Your task to perform on an android device: Is it going to rain this weekend? Image 0: 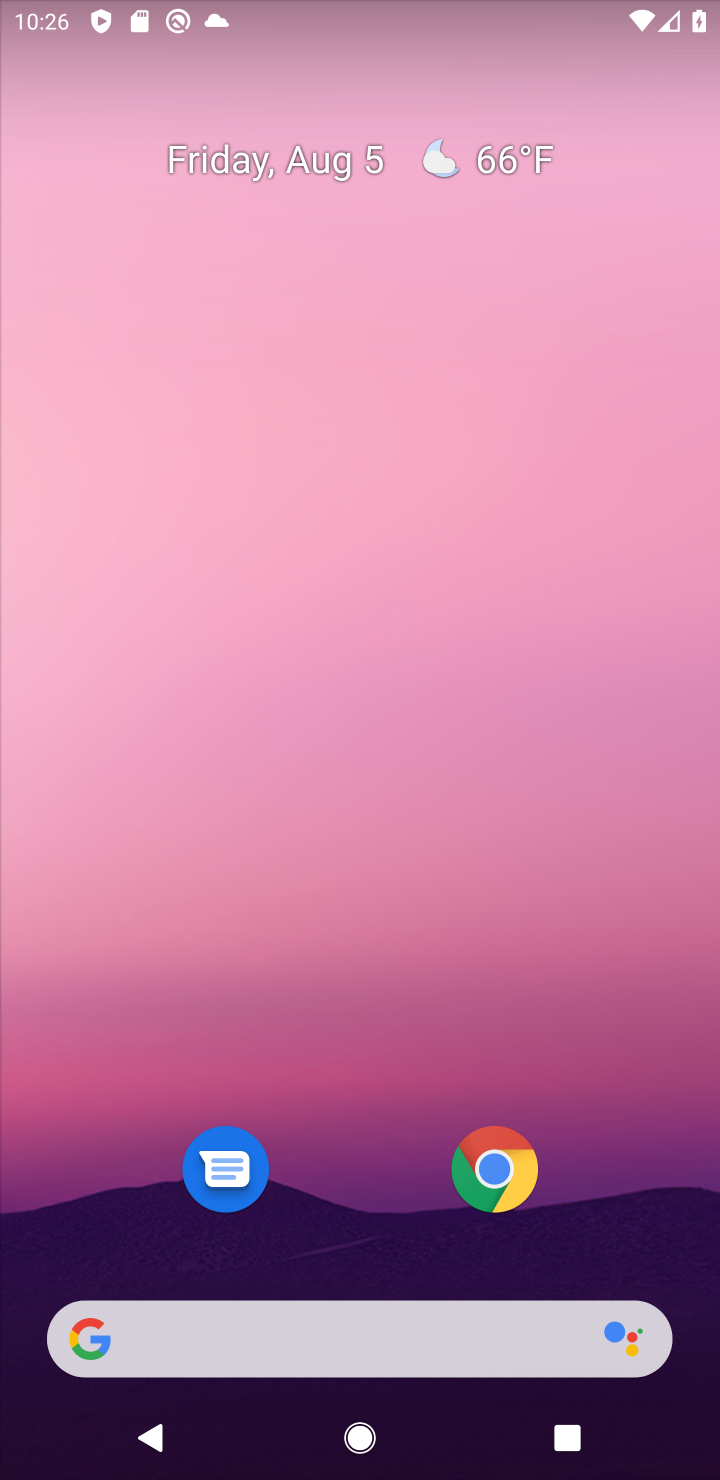
Step 0: drag from (655, 1223) to (631, 159)
Your task to perform on an android device: Is it going to rain this weekend? Image 1: 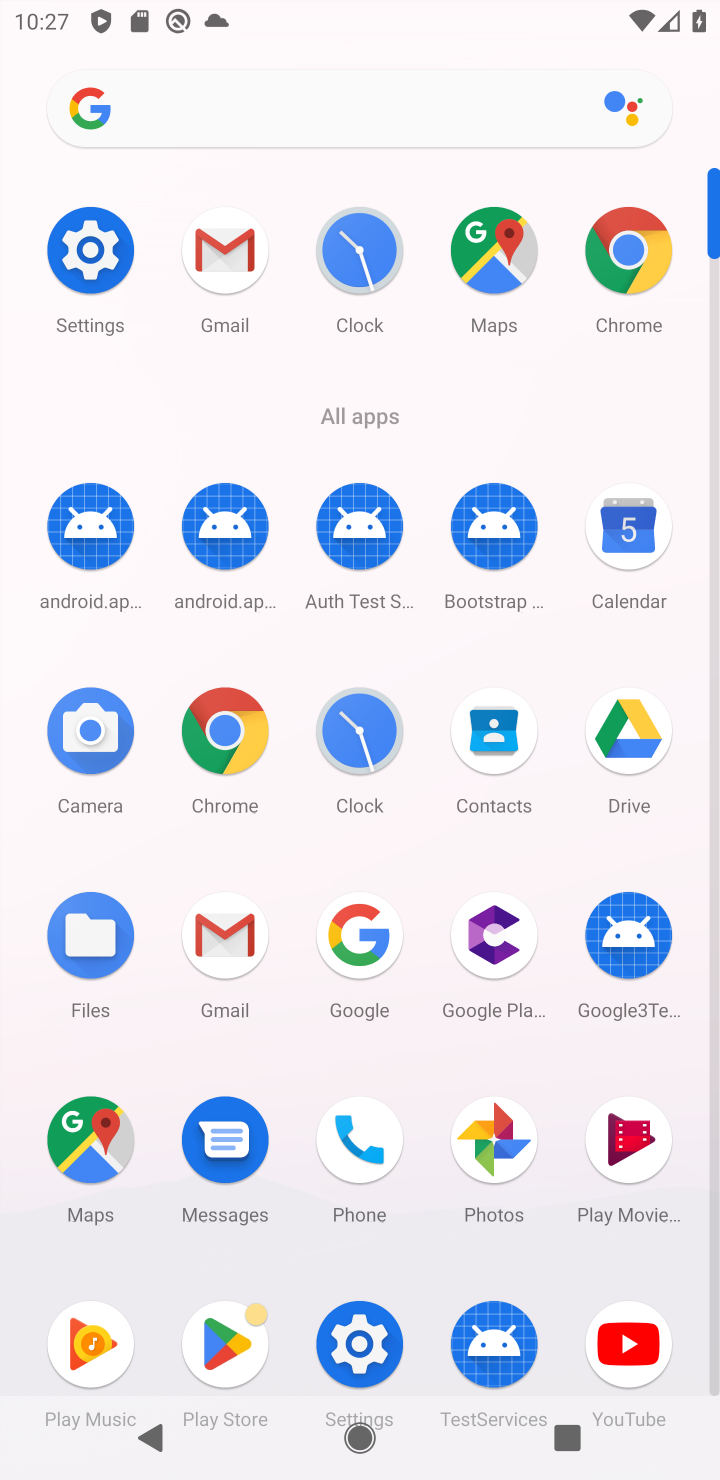
Step 1: click (255, 108)
Your task to perform on an android device: Is it going to rain this weekend? Image 2: 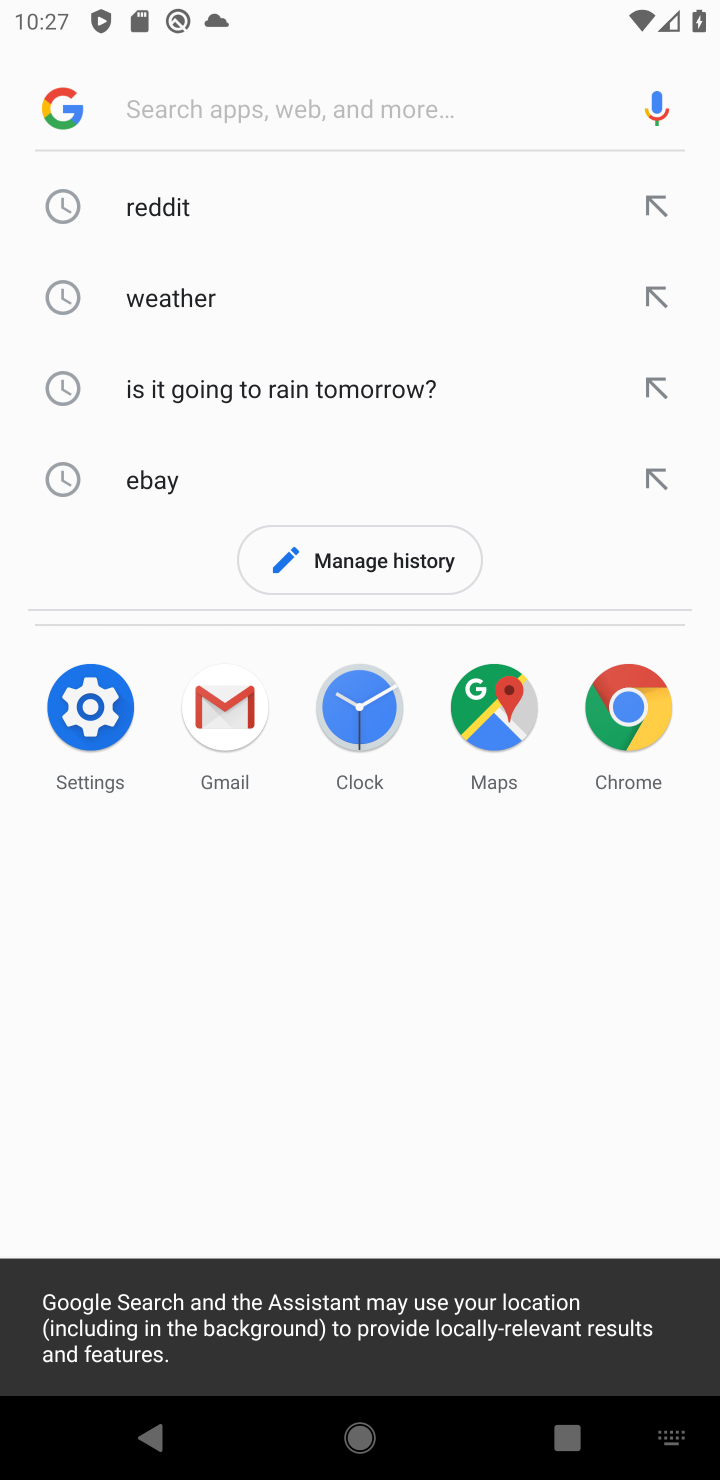
Step 2: click (152, 302)
Your task to perform on an android device: Is it going to rain this weekend? Image 3: 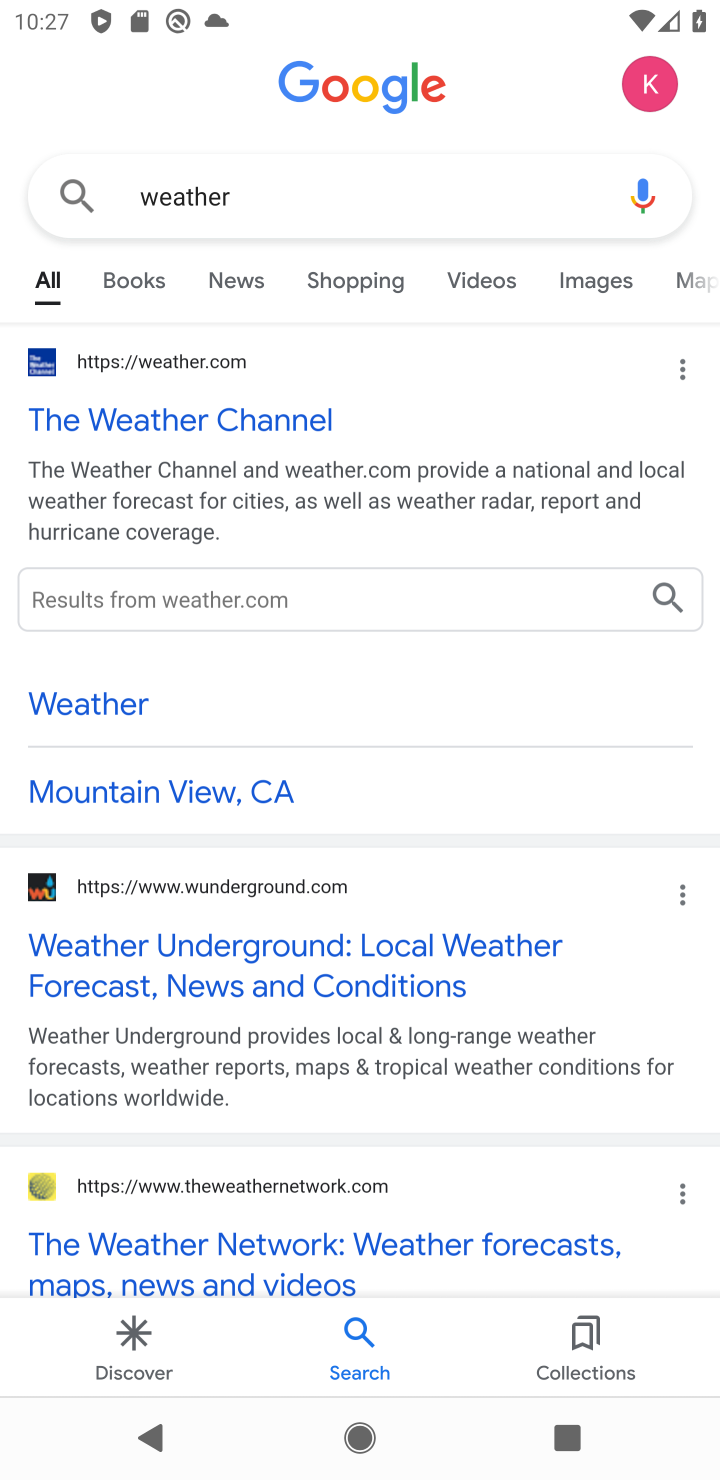
Step 3: click (170, 430)
Your task to perform on an android device: Is it going to rain this weekend? Image 4: 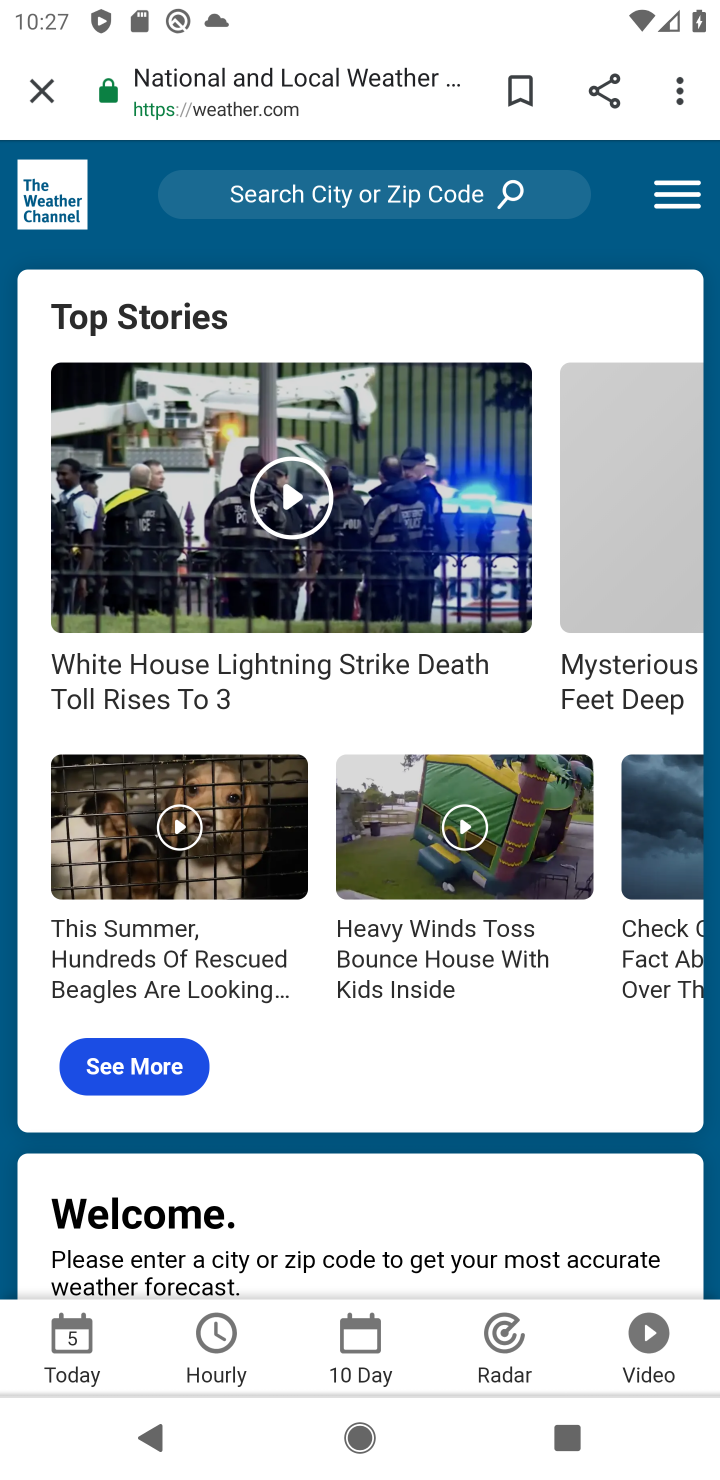
Step 4: click (39, 93)
Your task to perform on an android device: Is it going to rain this weekend? Image 5: 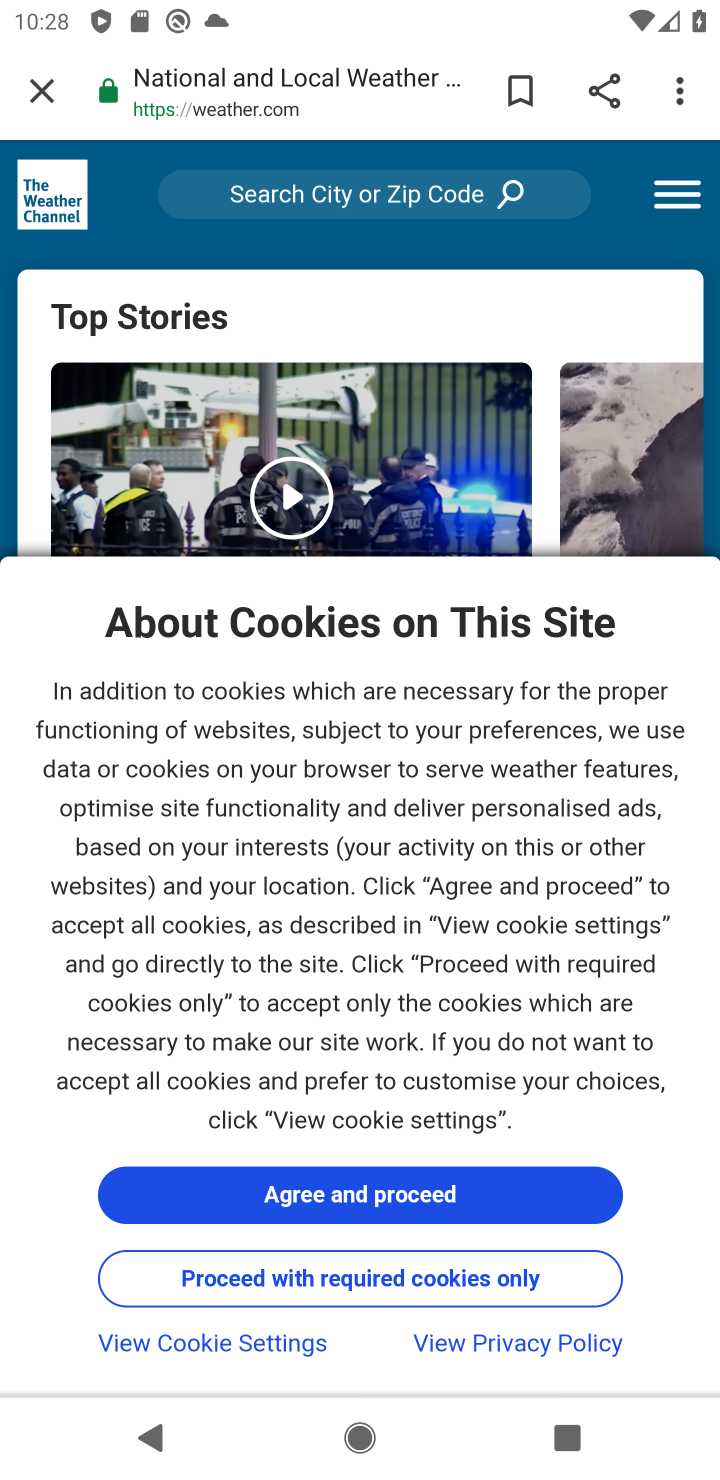
Step 5: click (35, 88)
Your task to perform on an android device: Is it going to rain this weekend? Image 6: 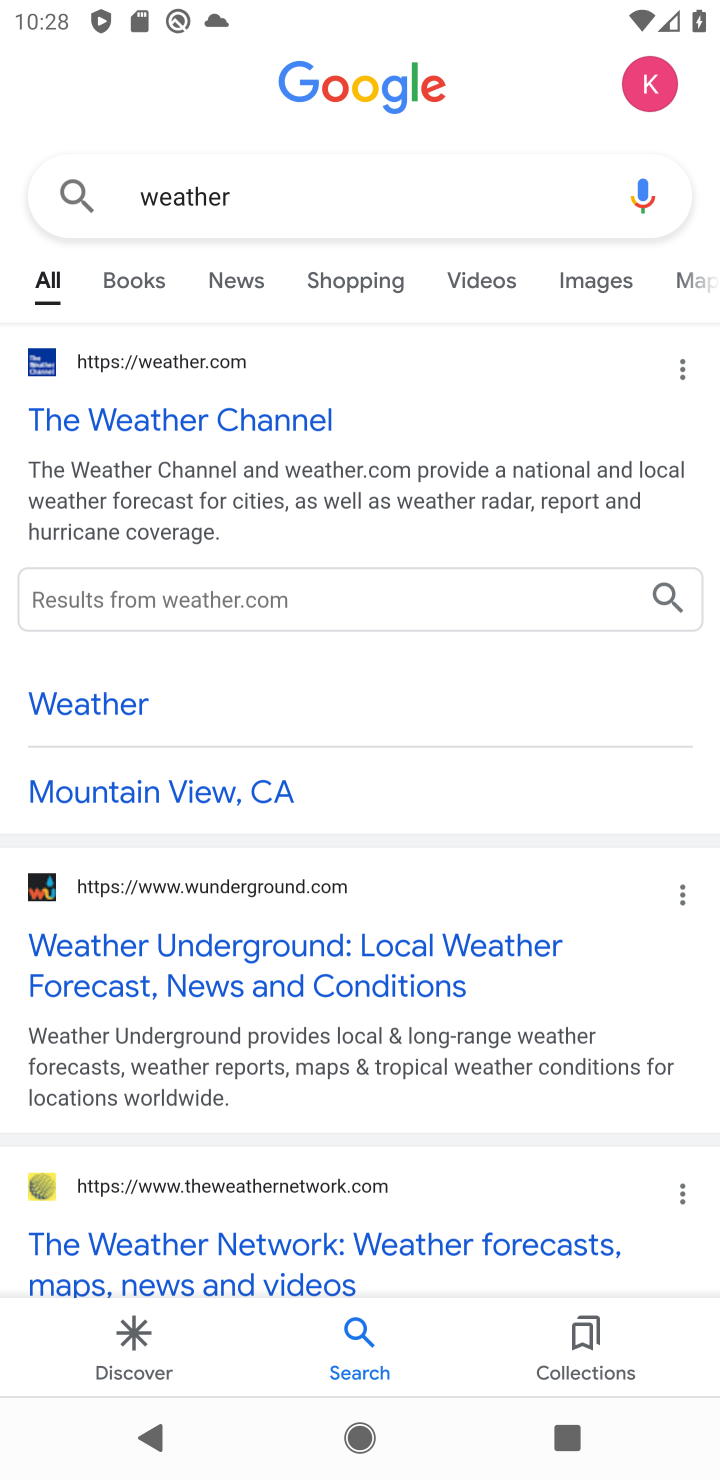
Step 6: press back button
Your task to perform on an android device: Is it going to rain this weekend? Image 7: 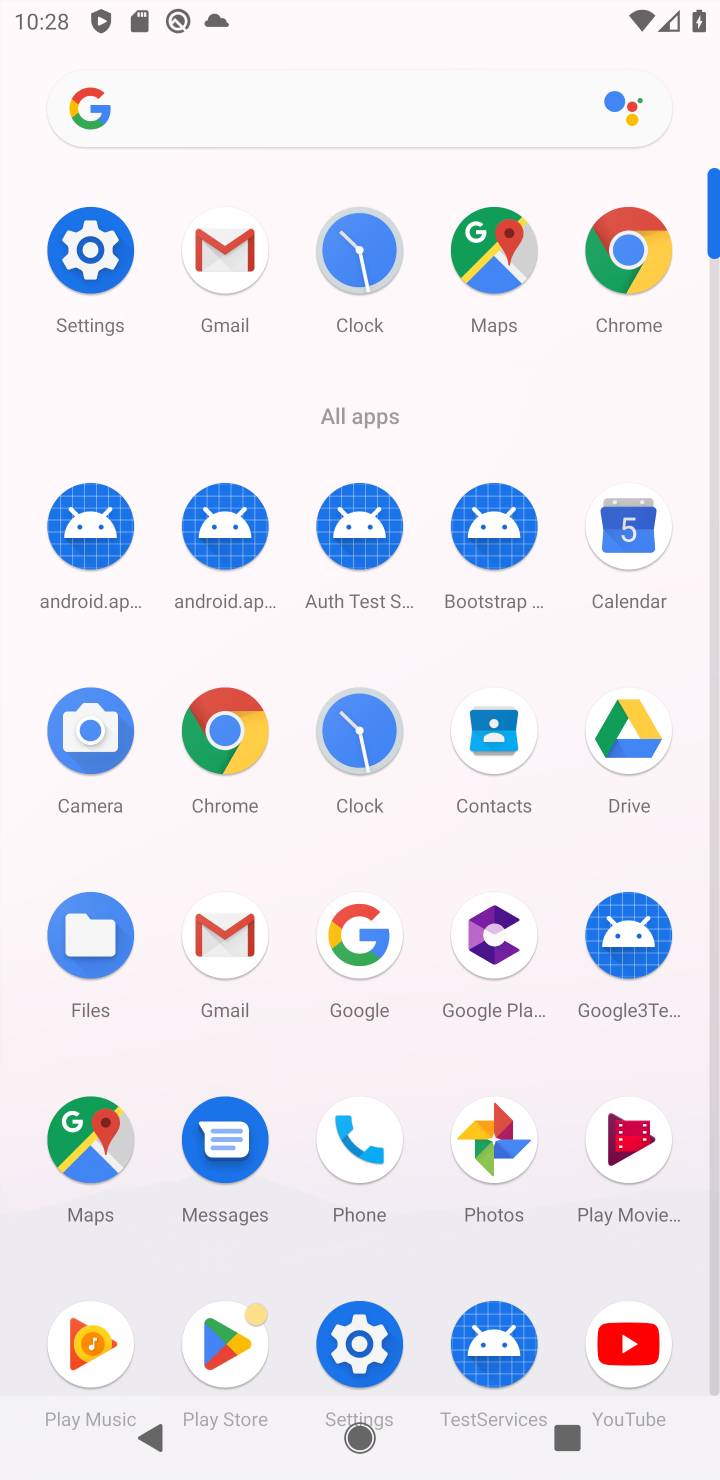
Step 7: click (245, 107)
Your task to perform on an android device: Is it going to rain this weekend? Image 8: 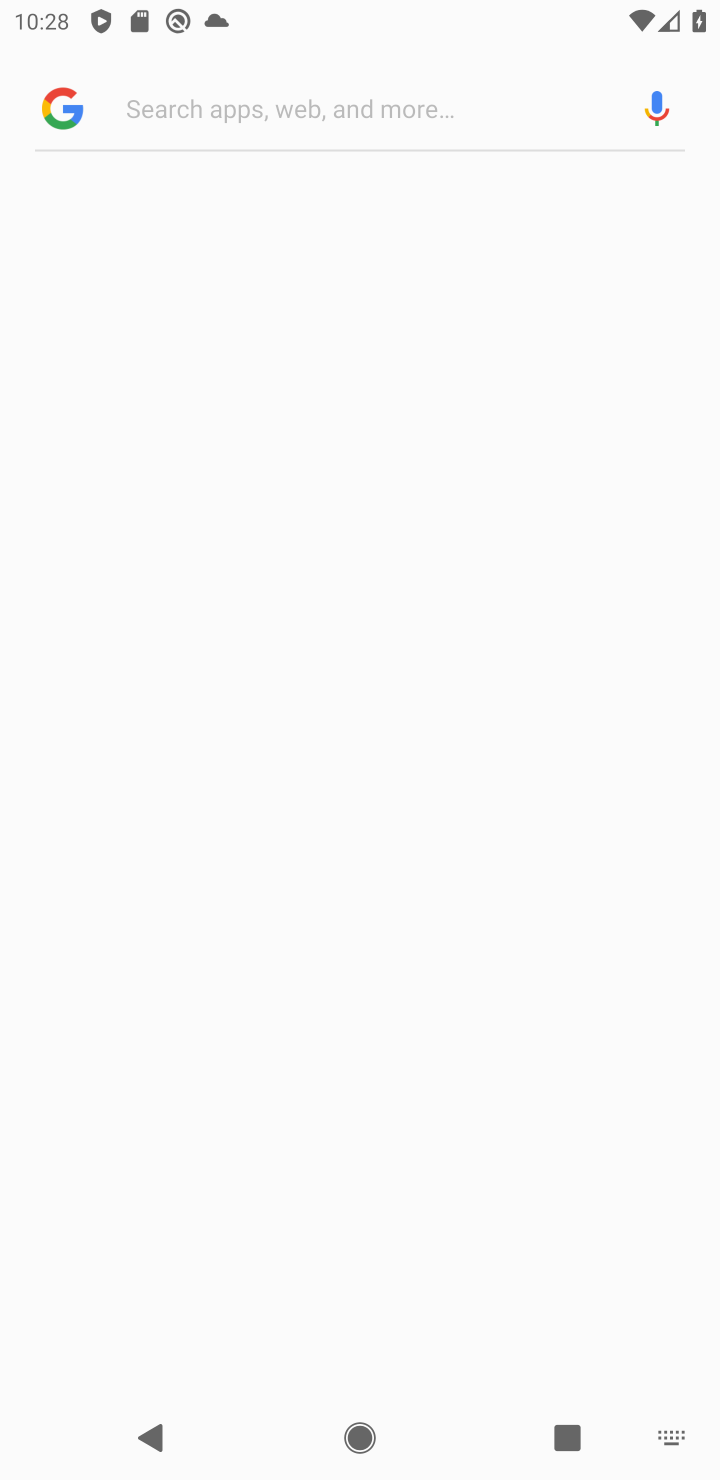
Step 8: task complete